Your task to perform on an android device: change timer sound Image 0: 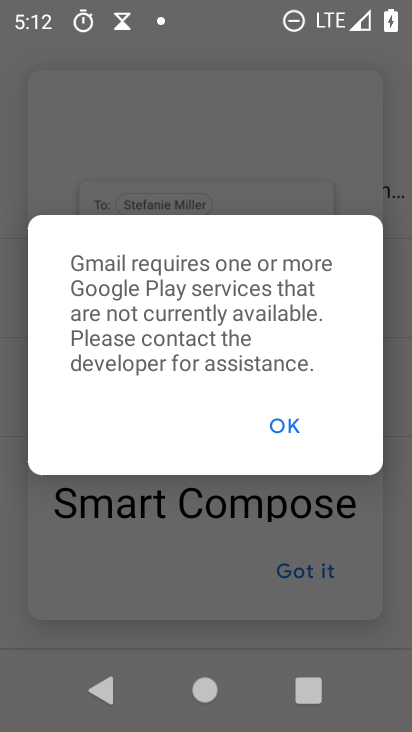
Step 0: click (283, 424)
Your task to perform on an android device: change timer sound Image 1: 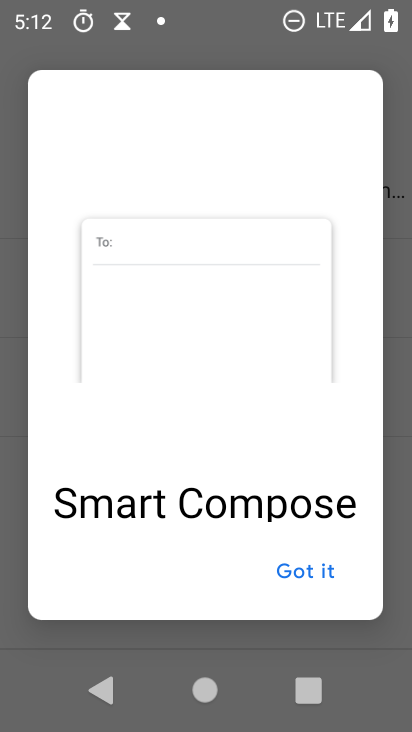
Step 1: press back button
Your task to perform on an android device: change timer sound Image 2: 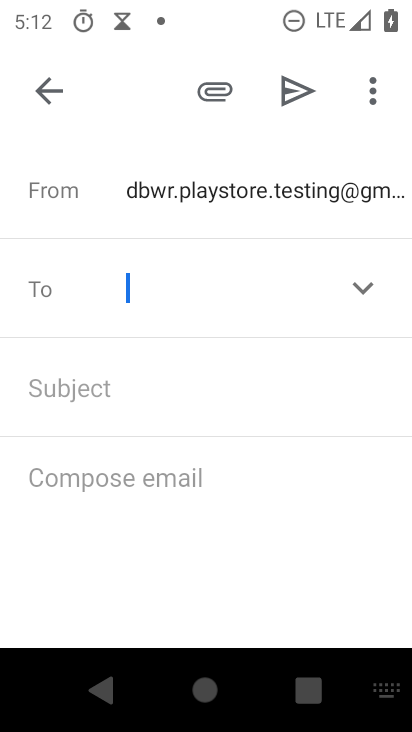
Step 2: press home button
Your task to perform on an android device: change timer sound Image 3: 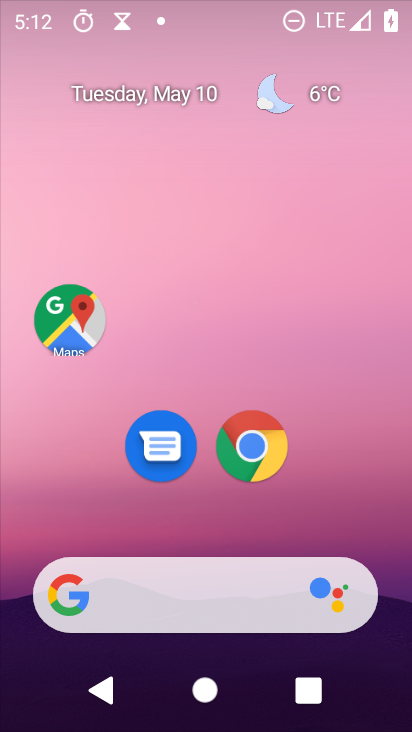
Step 3: drag from (309, 531) to (200, 22)
Your task to perform on an android device: change timer sound Image 4: 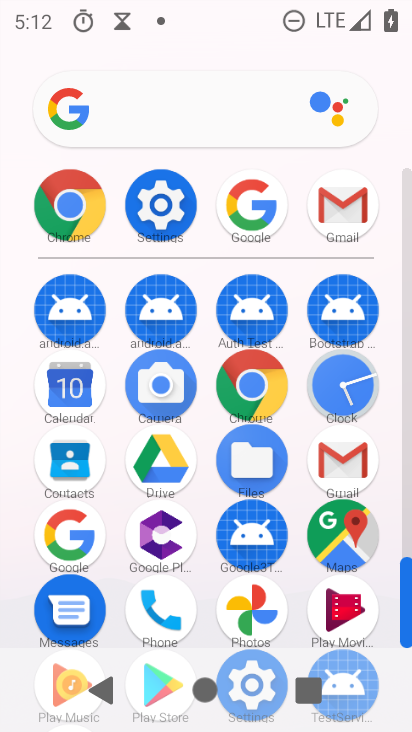
Step 4: click (349, 384)
Your task to perform on an android device: change timer sound Image 5: 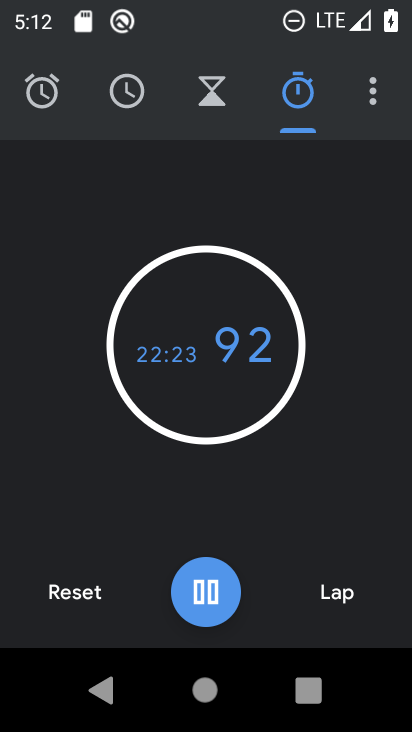
Step 5: click (371, 102)
Your task to perform on an android device: change timer sound Image 6: 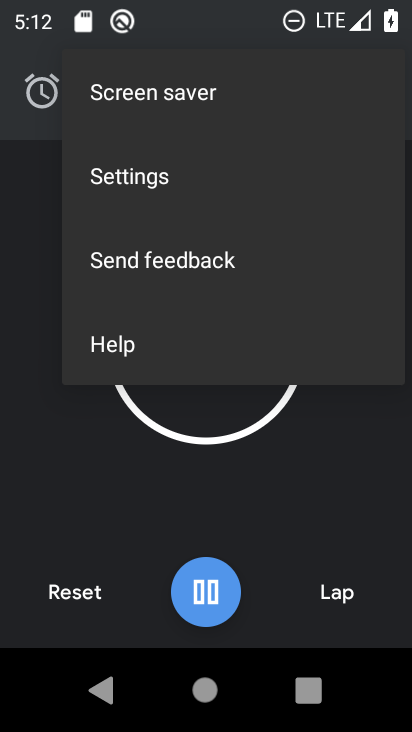
Step 6: click (157, 175)
Your task to perform on an android device: change timer sound Image 7: 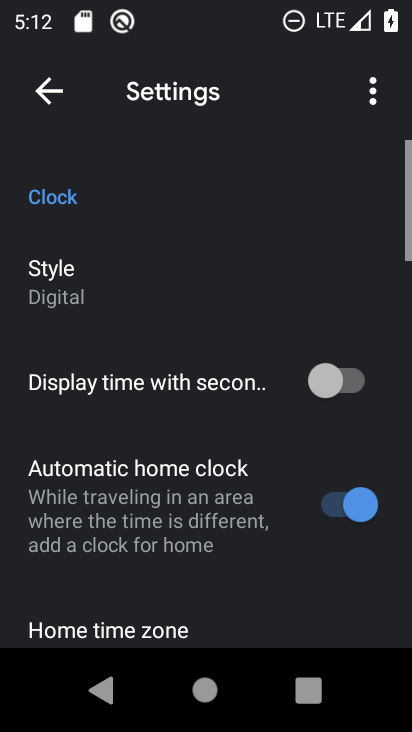
Step 7: drag from (210, 529) to (212, 94)
Your task to perform on an android device: change timer sound Image 8: 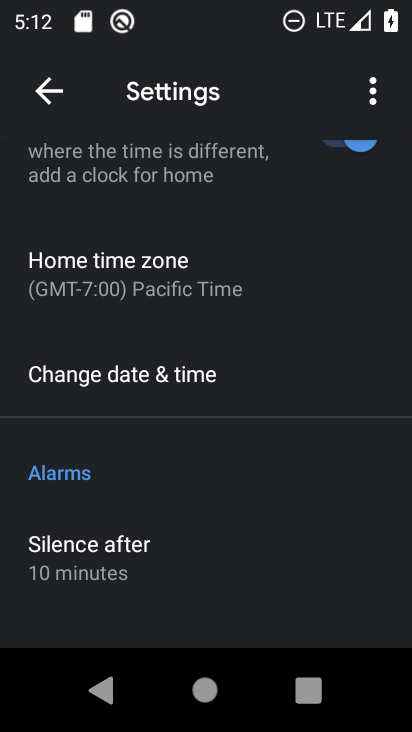
Step 8: drag from (202, 538) to (185, 113)
Your task to perform on an android device: change timer sound Image 9: 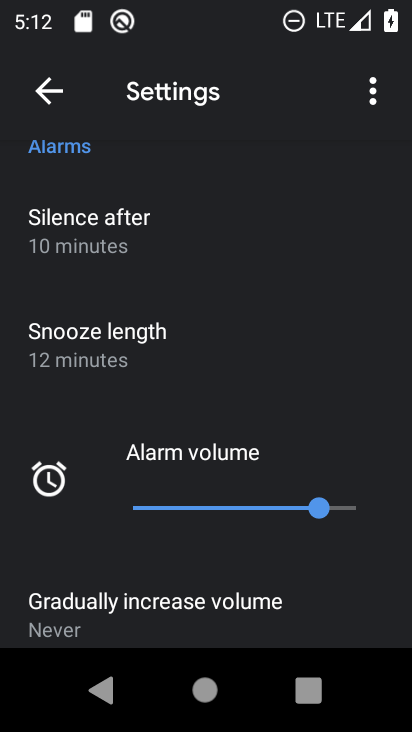
Step 9: click (168, 331)
Your task to perform on an android device: change timer sound Image 10: 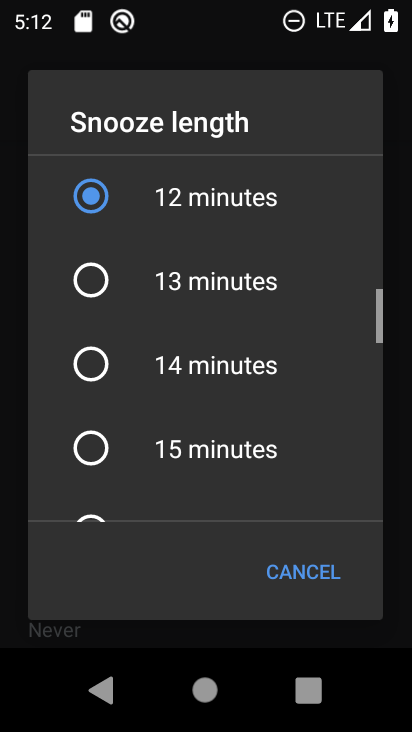
Step 10: click (184, 281)
Your task to perform on an android device: change timer sound Image 11: 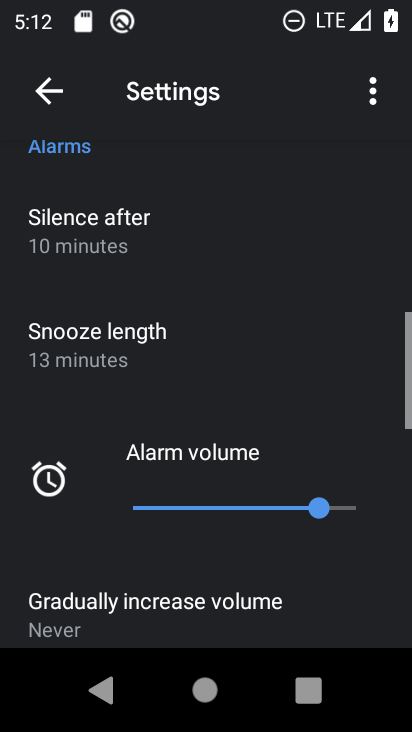
Step 11: task complete